Your task to perform on an android device: Check the weather Image 0: 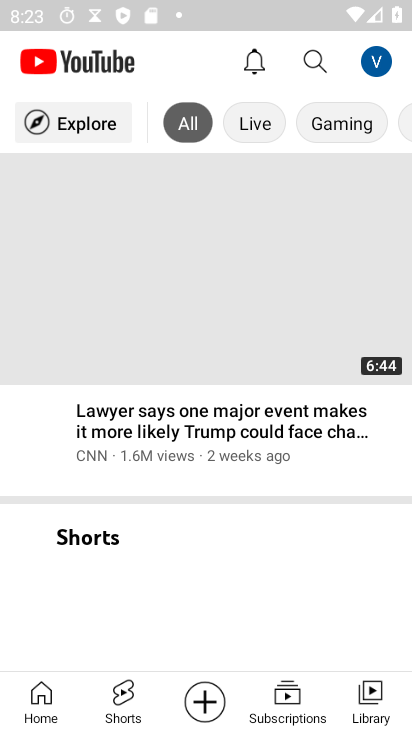
Step 0: press home button
Your task to perform on an android device: Check the weather Image 1: 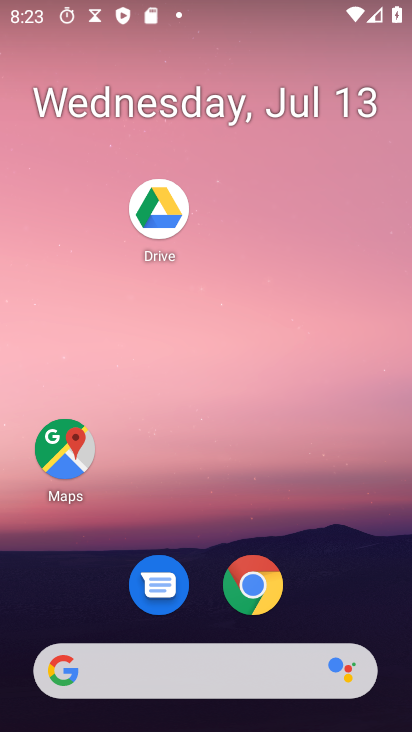
Step 1: click (172, 673)
Your task to perform on an android device: Check the weather Image 2: 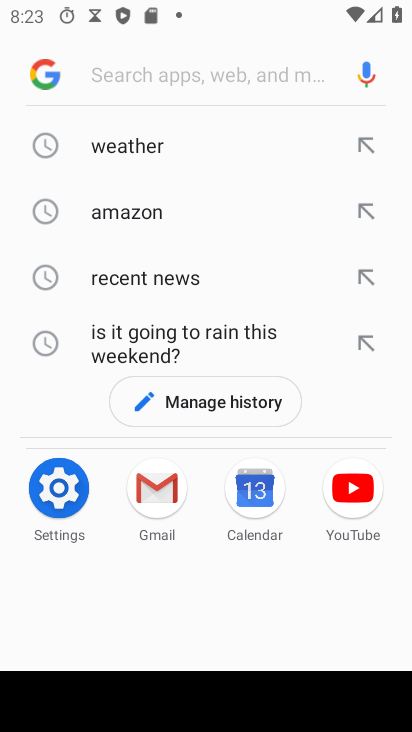
Step 2: click (124, 144)
Your task to perform on an android device: Check the weather Image 3: 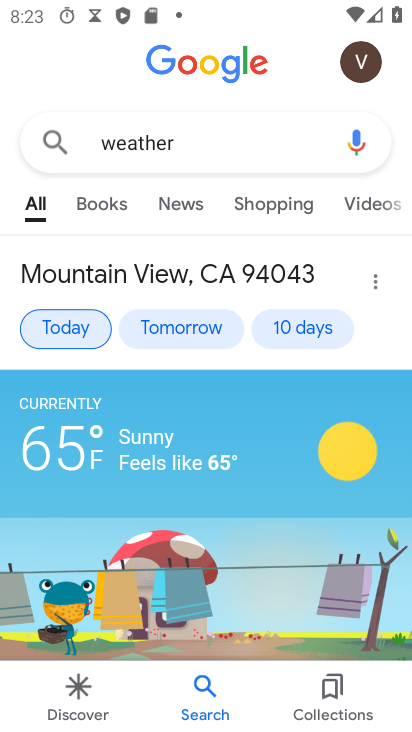
Step 3: task complete